Your task to perform on an android device: Turn off the flashlight Image 0: 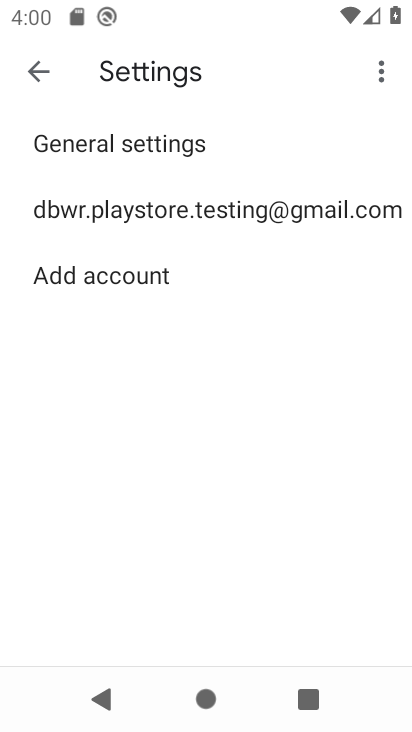
Step 0: press home button
Your task to perform on an android device: Turn off the flashlight Image 1: 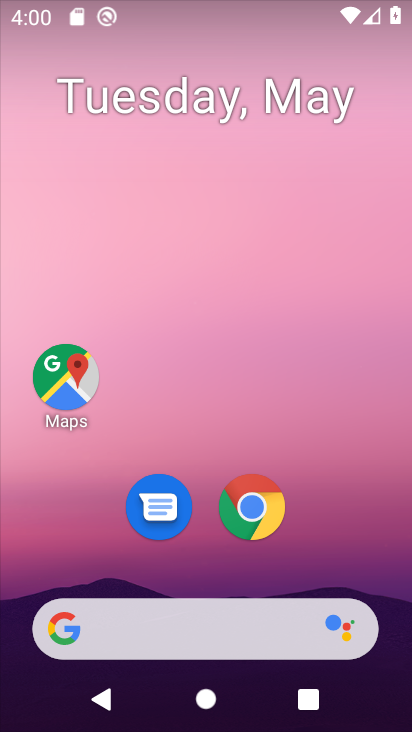
Step 1: drag from (218, 578) to (277, 50)
Your task to perform on an android device: Turn off the flashlight Image 2: 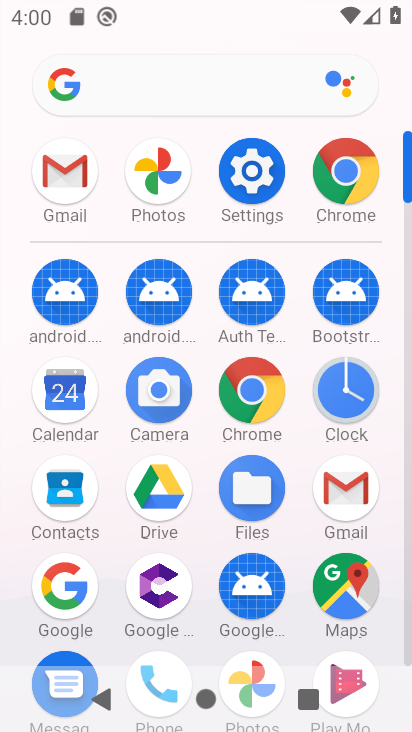
Step 2: click (254, 183)
Your task to perform on an android device: Turn off the flashlight Image 3: 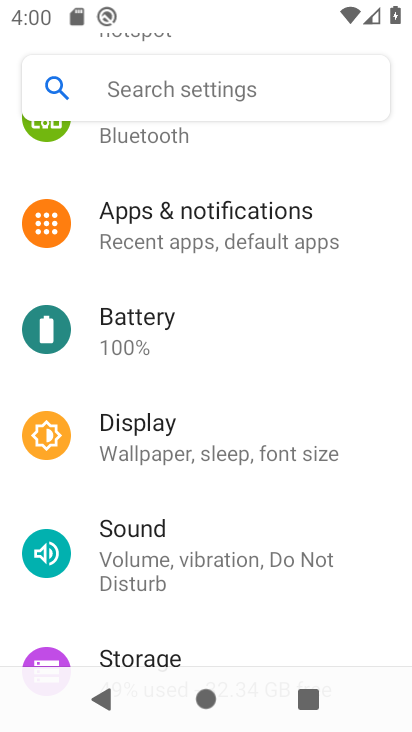
Step 3: task complete